Your task to perform on an android device: Do I have any events tomorrow? Image 0: 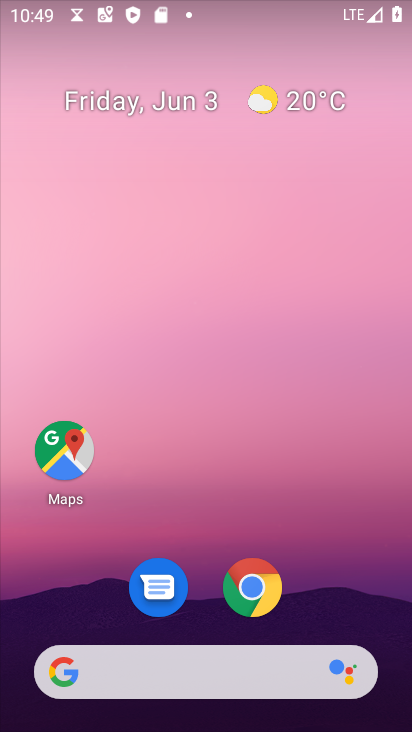
Step 0: drag from (331, 459) to (180, 67)
Your task to perform on an android device: Do I have any events tomorrow? Image 1: 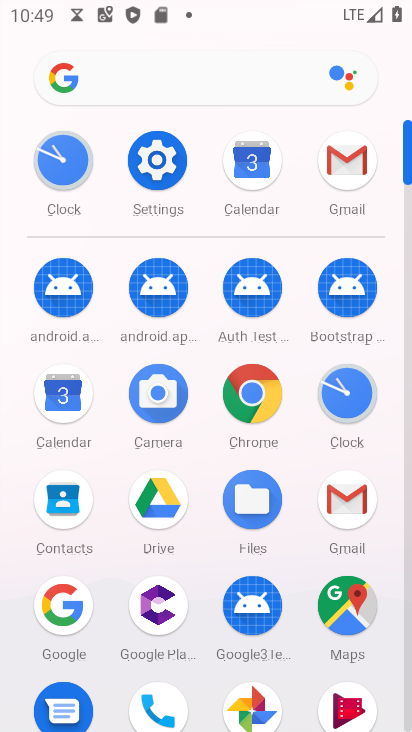
Step 1: click (65, 400)
Your task to perform on an android device: Do I have any events tomorrow? Image 2: 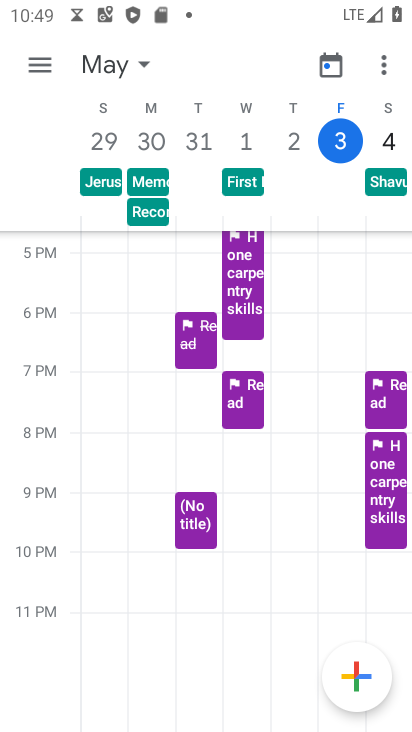
Step 2: task complete